Your task to perform on an android device: Turn on the flashlight Image 0: 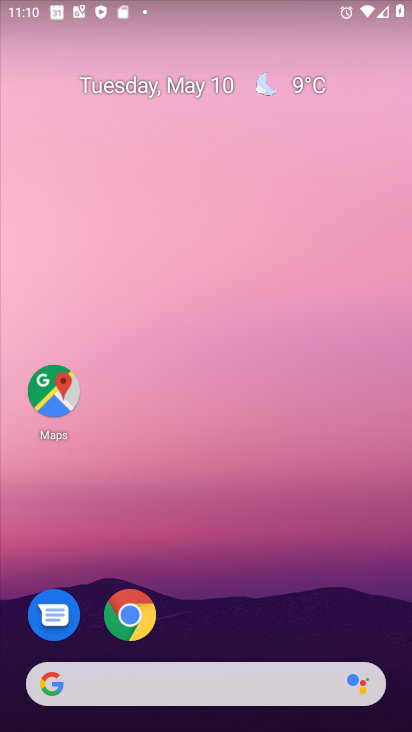
Step 0: drag from (217, 644) to (201, 2)
Your task to perform on an android device: Turn on the flashlight Image 1: 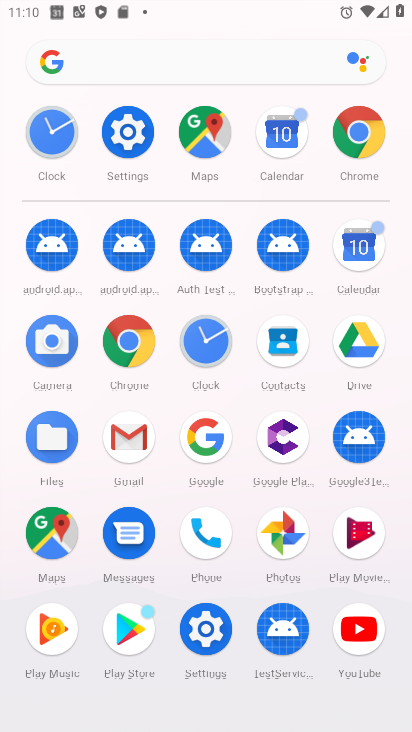
Step 1: click (129, 128)
Your task to perform on an android device: Turn on the flashlight Image 2: 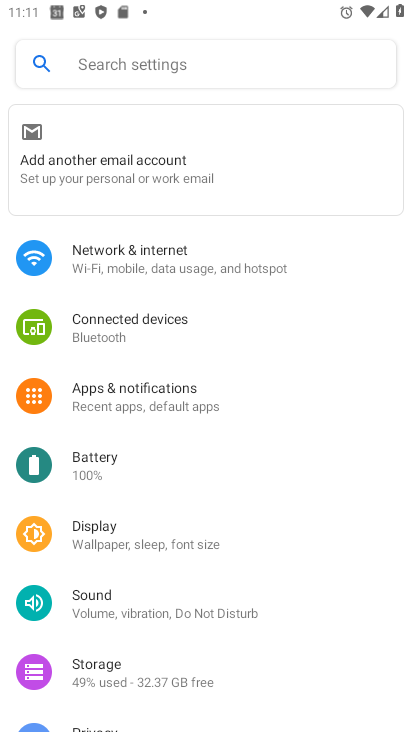
Step 2: click (170, 56)
Your task to perform on an android device: Turn on the flashlight Image 3: 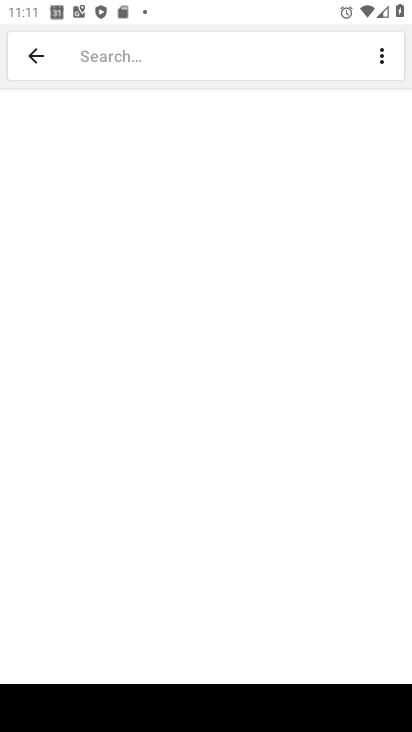
Step 3: type "flashlight"
Your task to perform on an android device: Turn on the flashlight Image 4: 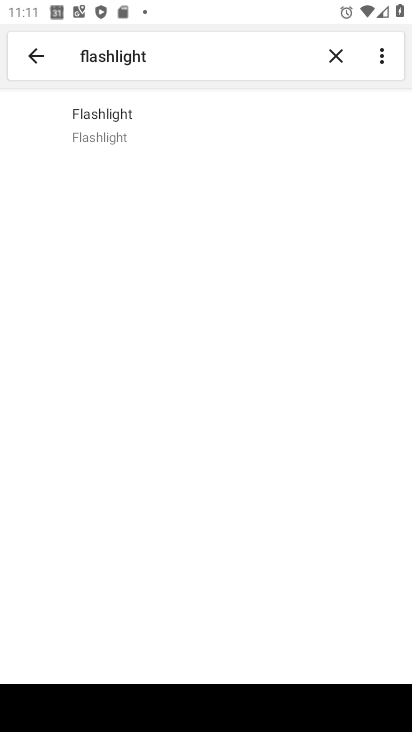
Step 4: click (150, 124)
Your task to perform on an android device: Turn on the flashlight Image 5: 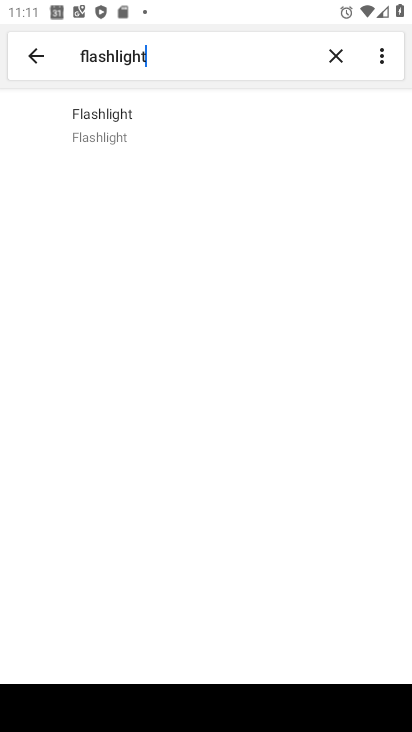
Step 5: task complete